Your task to perform on an android device: install app "Airtel Thanks" Image 0: 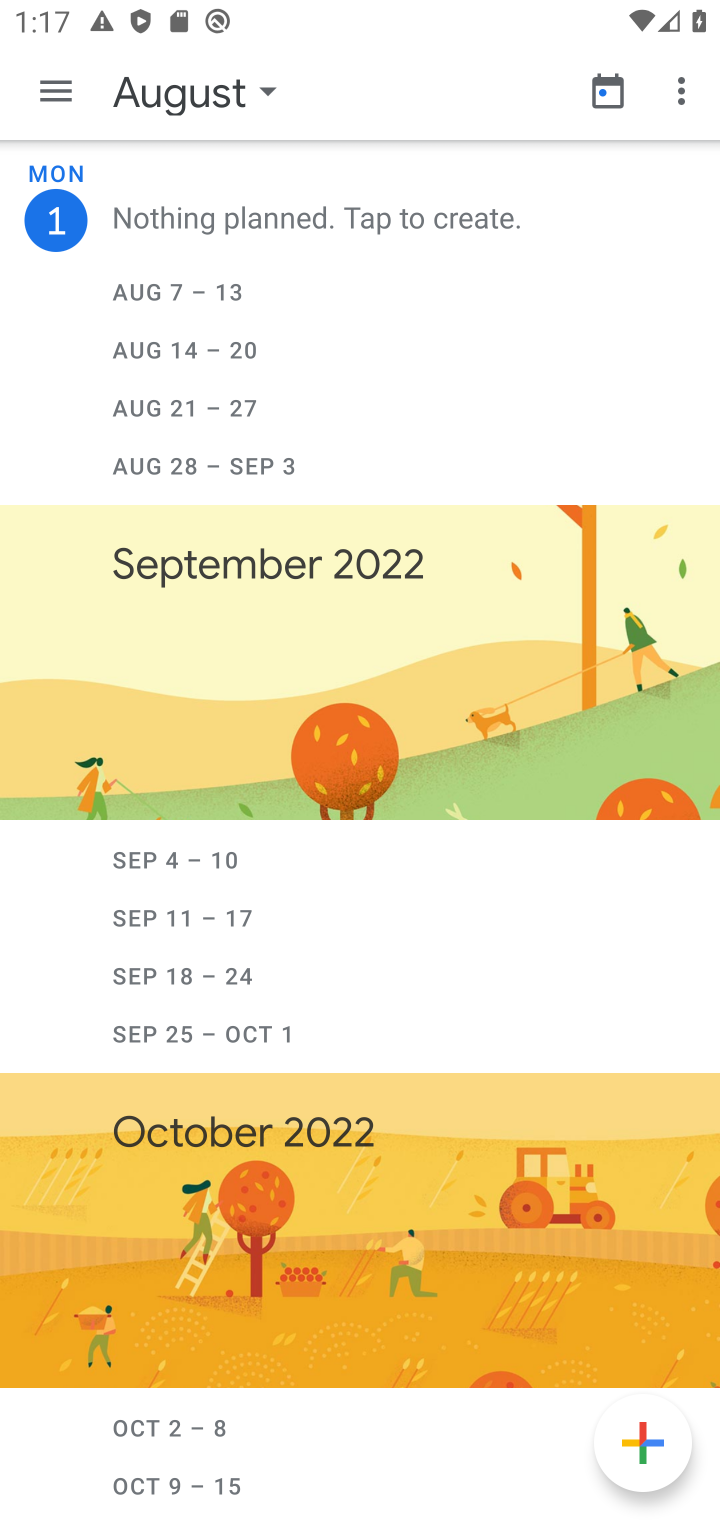
Step 0: press home button
Your task to perform on an android device: install app "Airtel Thanks" Image 1: 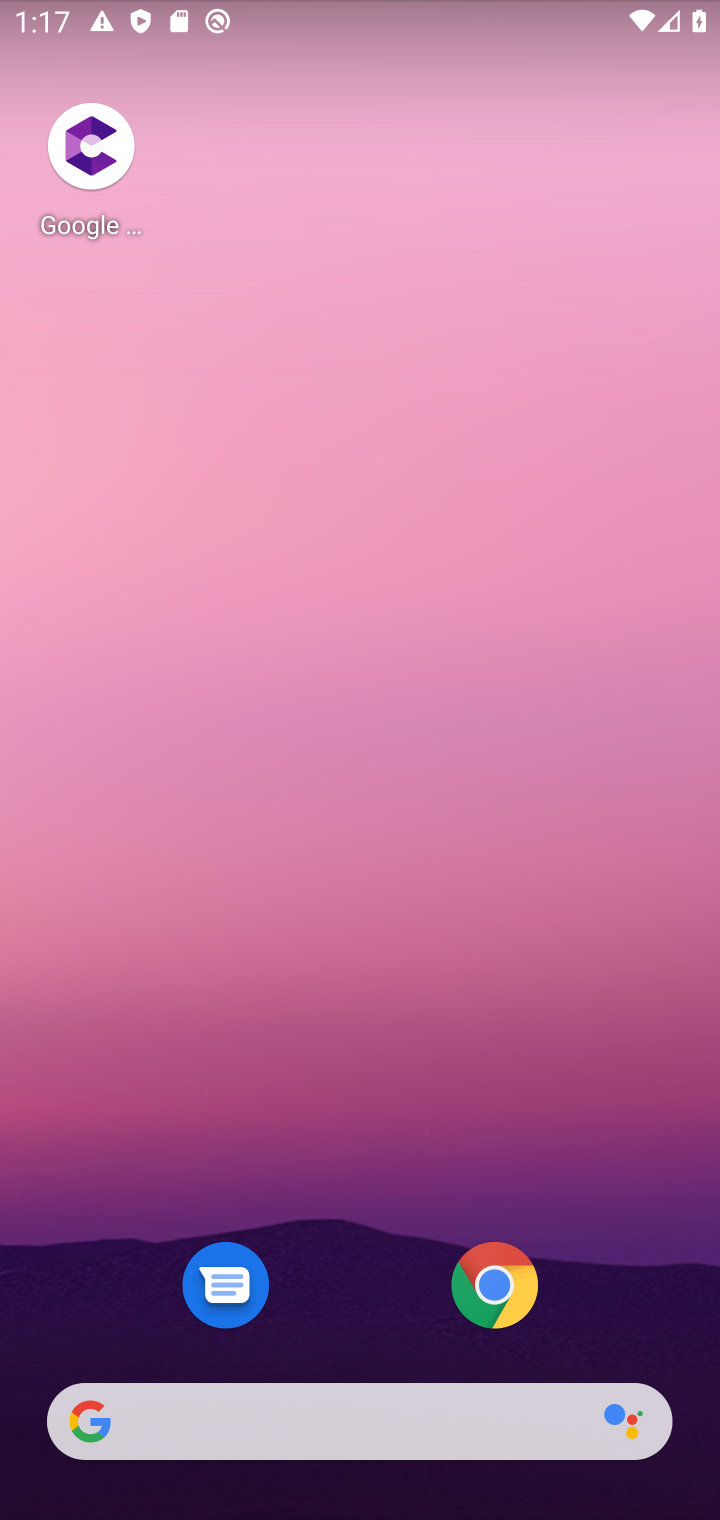
Step 1: drag from (242, 950) to (123, 95)
Your task to perform on an android device: install app "Airtel Thanks" Image 2: 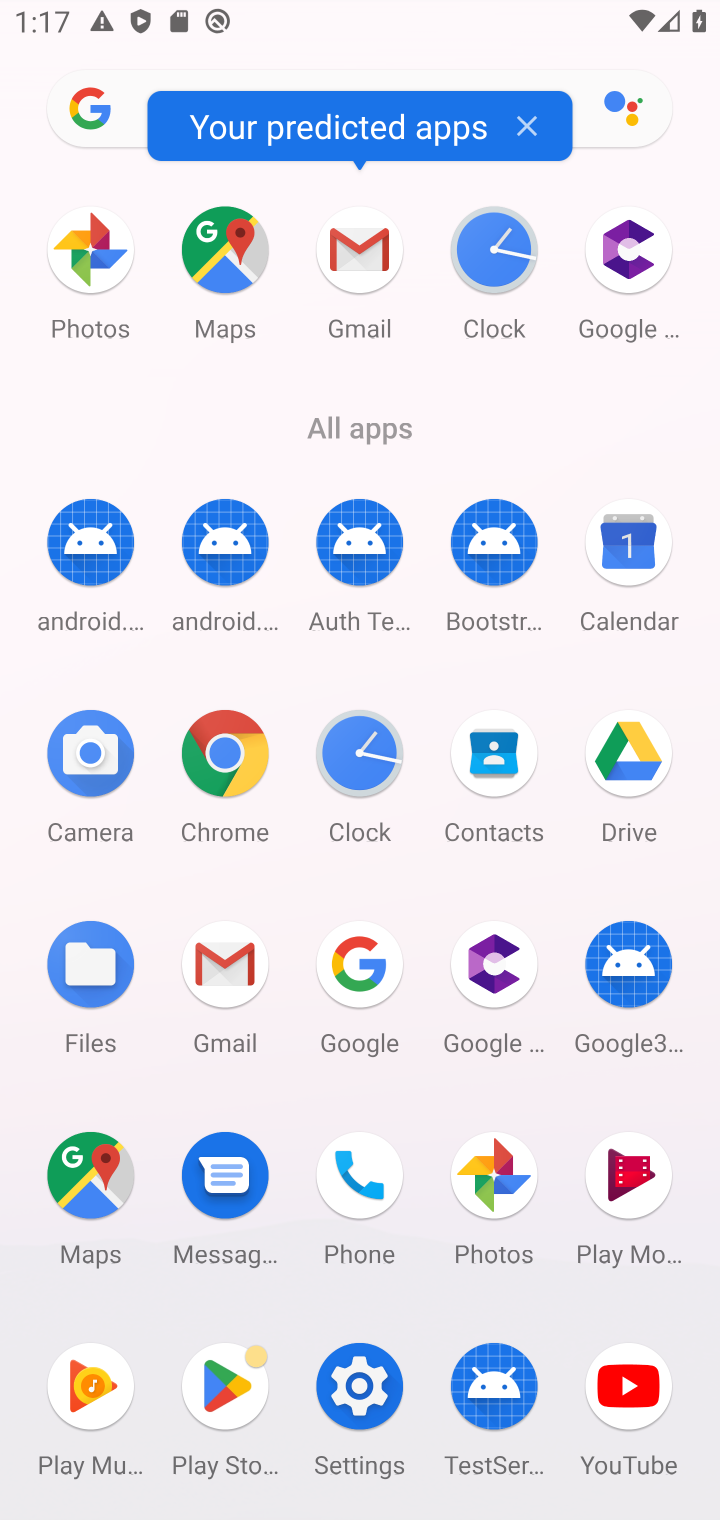
Step 2: click (205, 1401)
Your task to perform on an android device: install app "Airtel Thanks" Image 3: 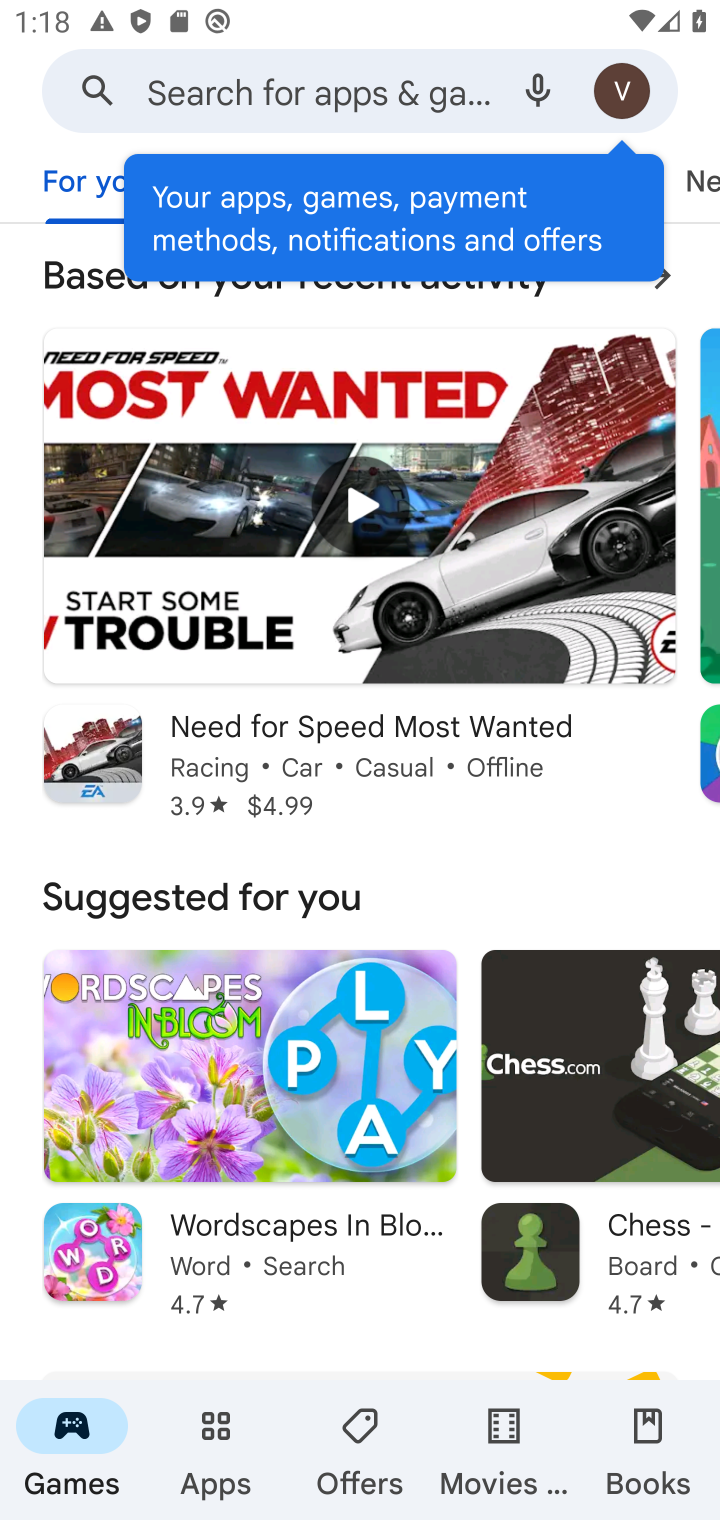
Step 3: click (222, 67)
Your task to perform on an android device: install app "Airtel Thanks" Image 4: 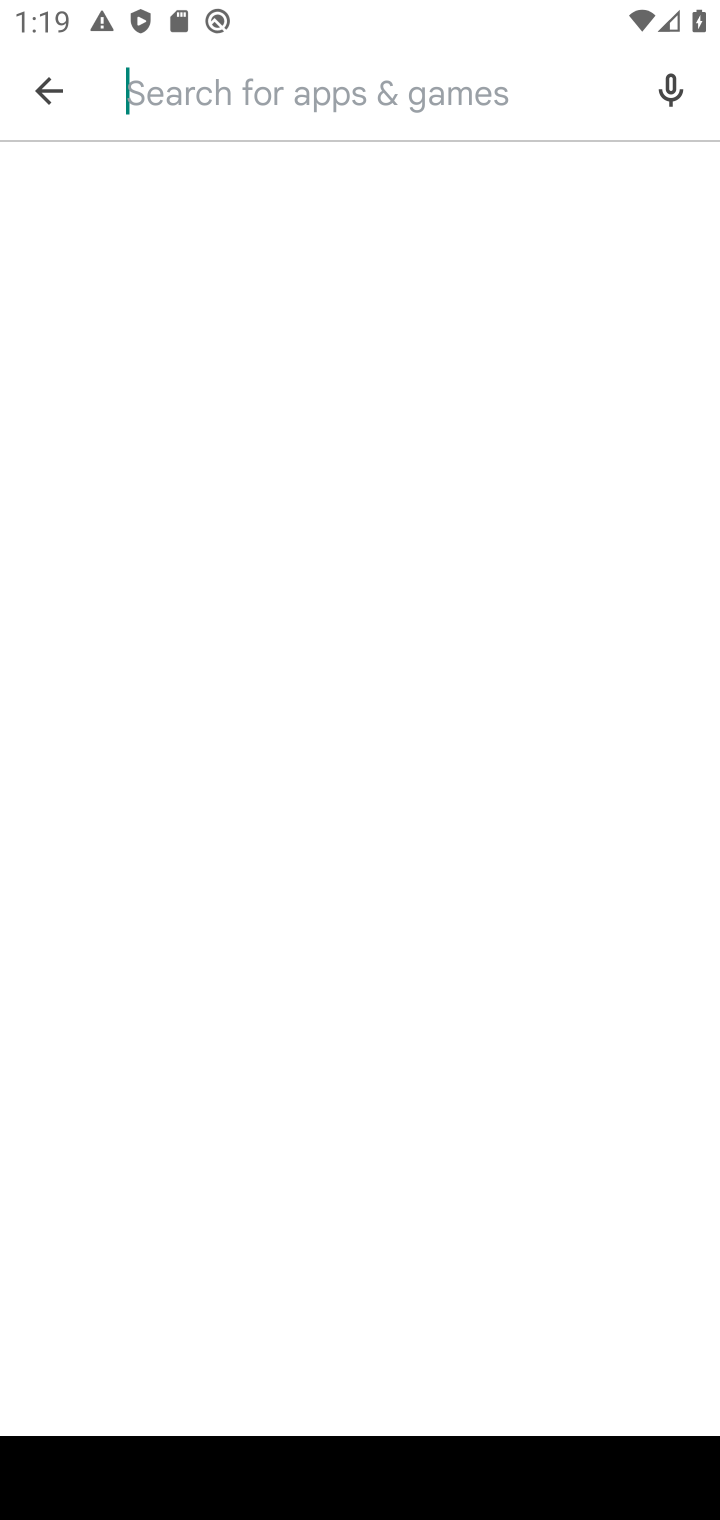
Step 4: type "Airtel Thanks"
Your task to perform on an android device: install app "Airtel Thanks" Image 5: 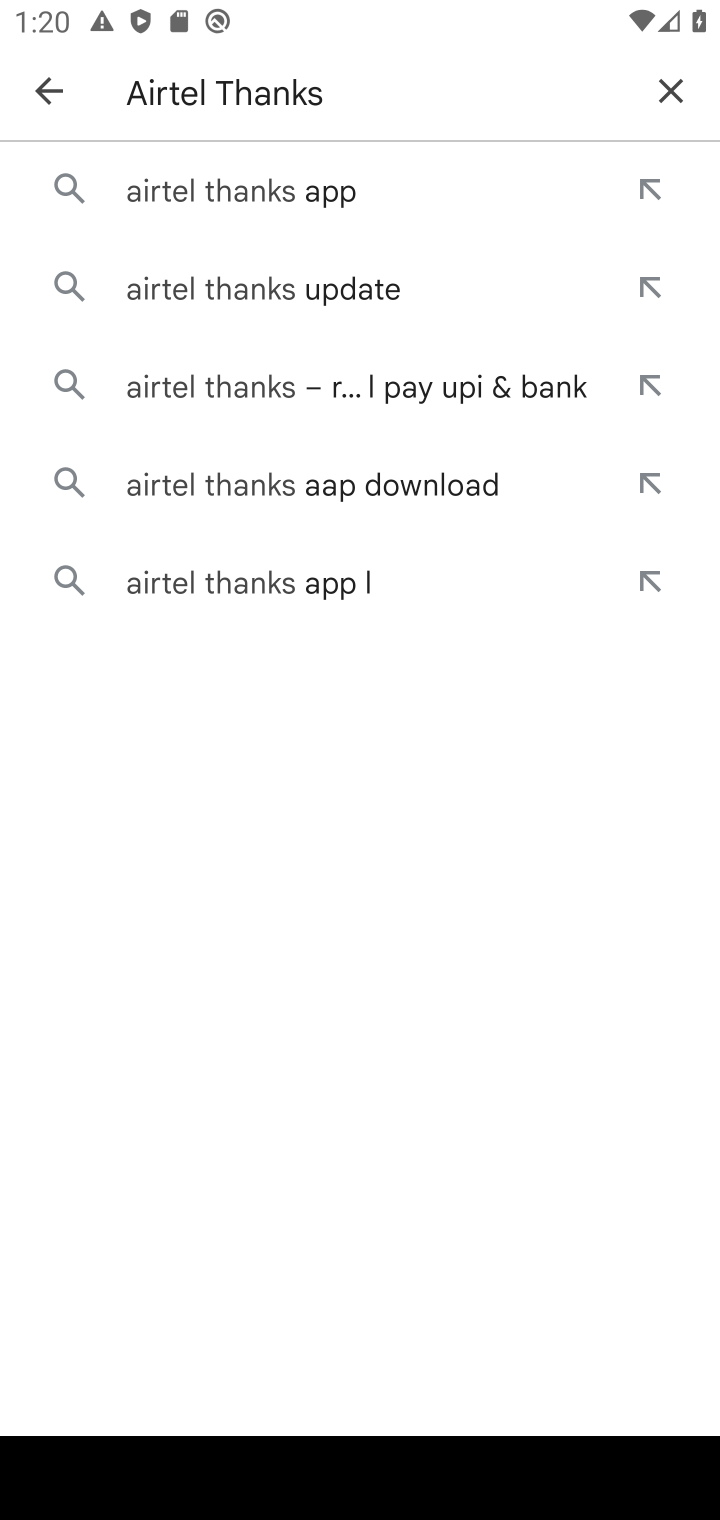
Step 5: click (311, 194)
Your task to perform on an android device: install app "Airtel Thanks" Image 6: 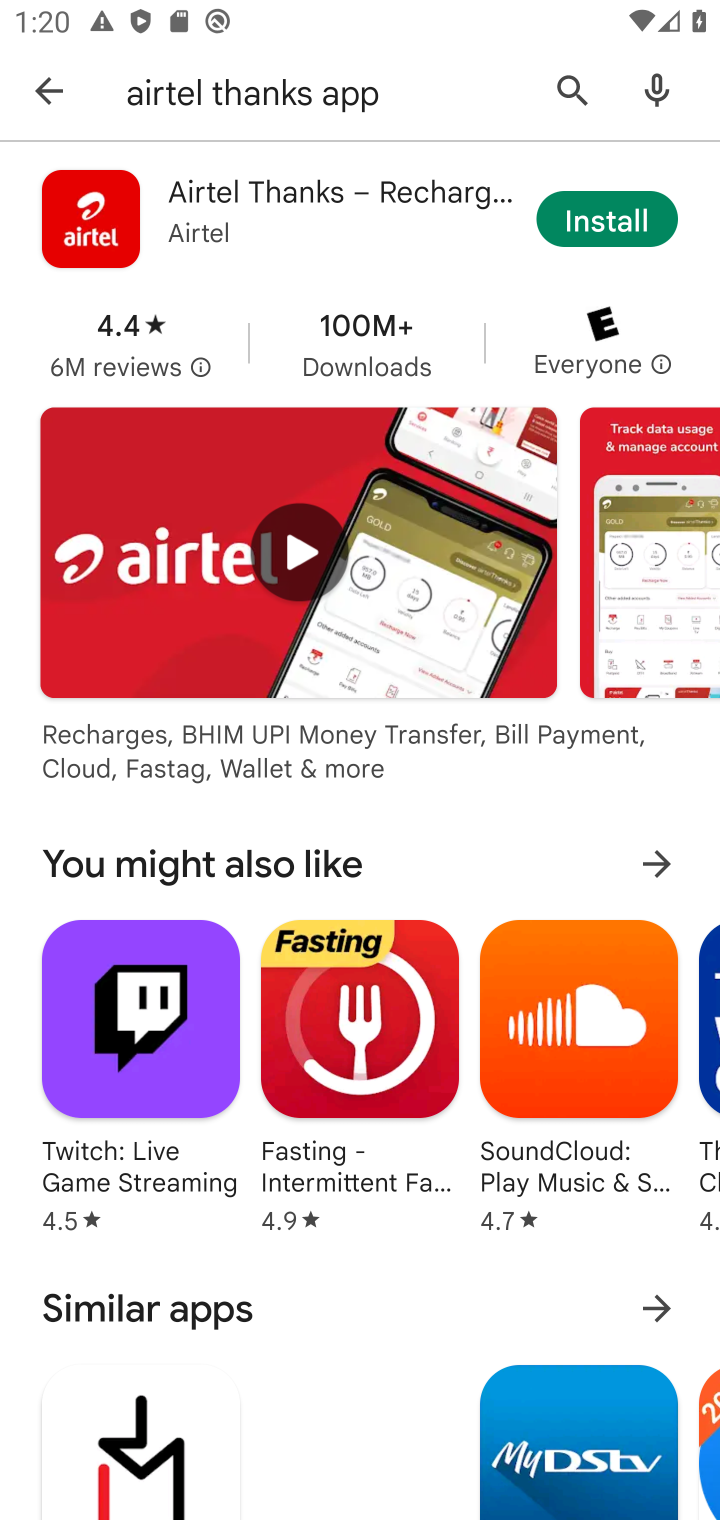
Step 6: click (633, 206)
Your task to perform on an android device: install app "Airtel Thanks" Image 7: 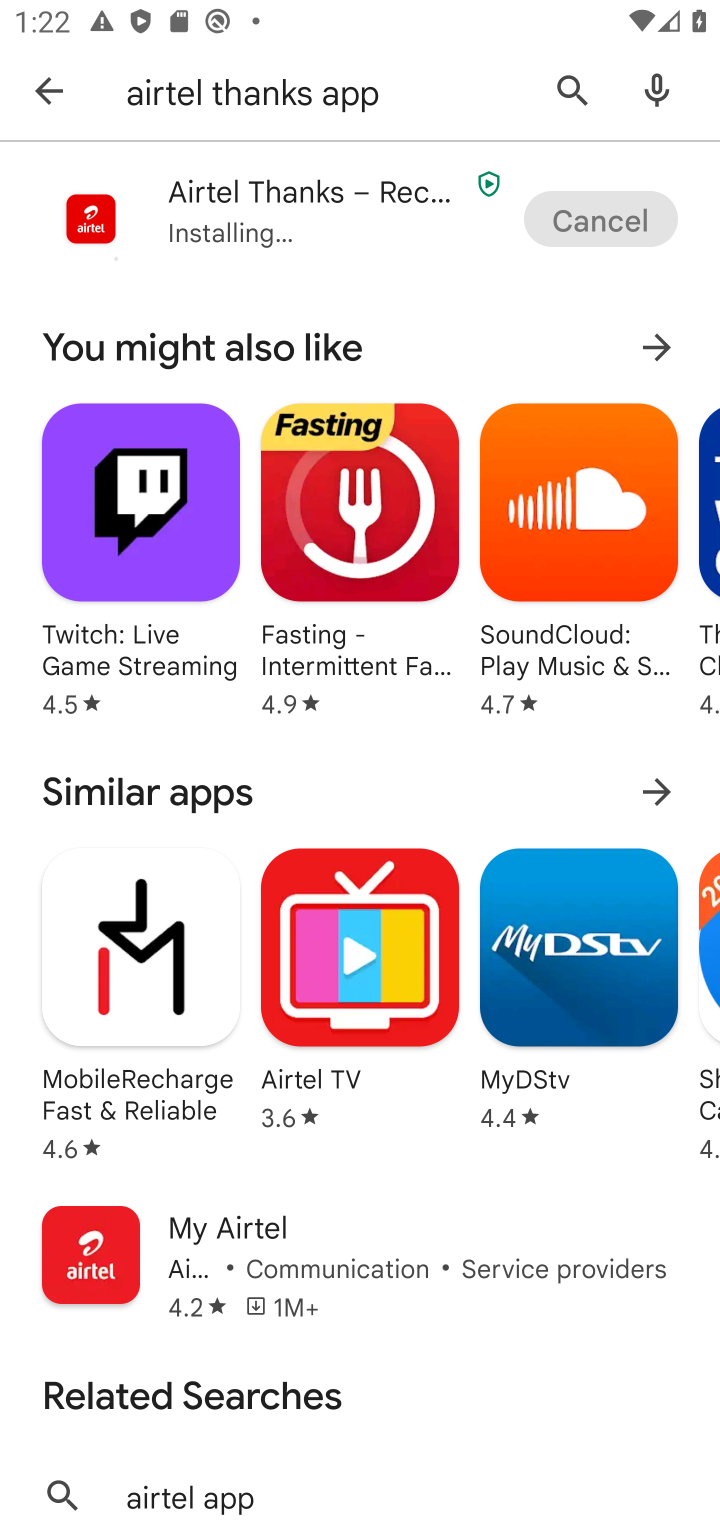
Step 7: task complete